Your task to perform on an android device: Search for usb-a on amazon.com, select the first entry, and add it to the cart. Image 0: 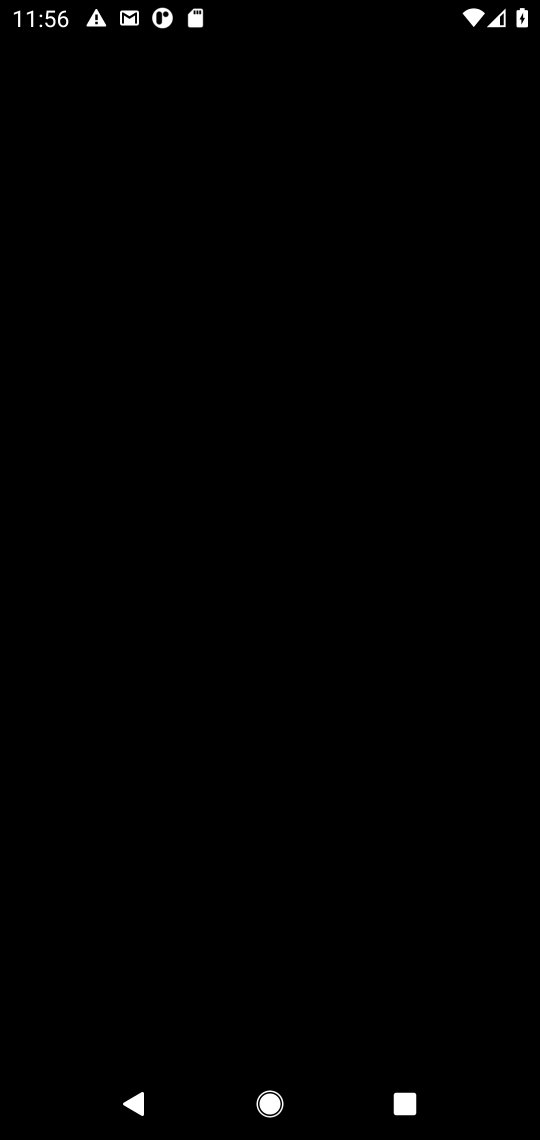
Step 0: press home button
Your task to perform on an android device: Search for usb-a on amazon.com, select the first entry, and add it to the cart. Image 1: 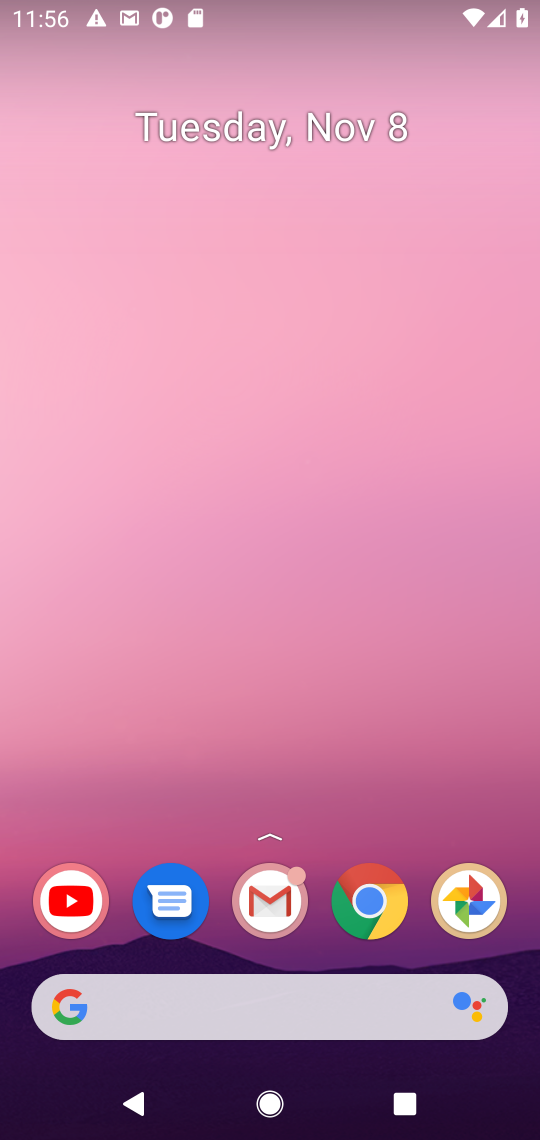
Step 1: click (347, 920)
Your task to perform on an android device: Search for usb-a on amazon.com, select the first entry, and add it to the cart. Image 2: 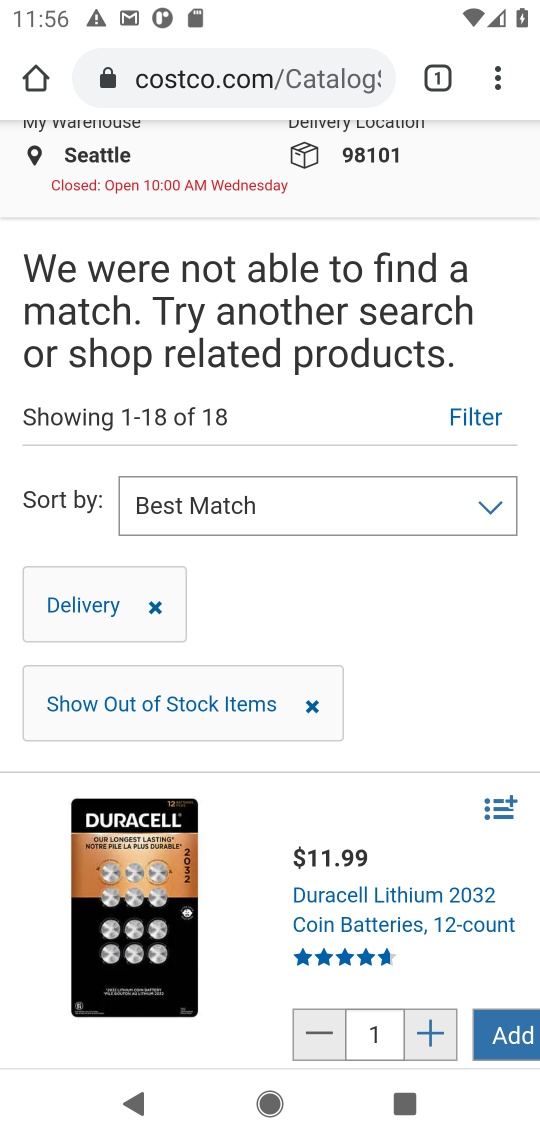
Step 2: click (218, 71)
Your task to perform on an android device: Search for usb-a on amazon.com, select the first entry, and add it to the cart. Image 3: 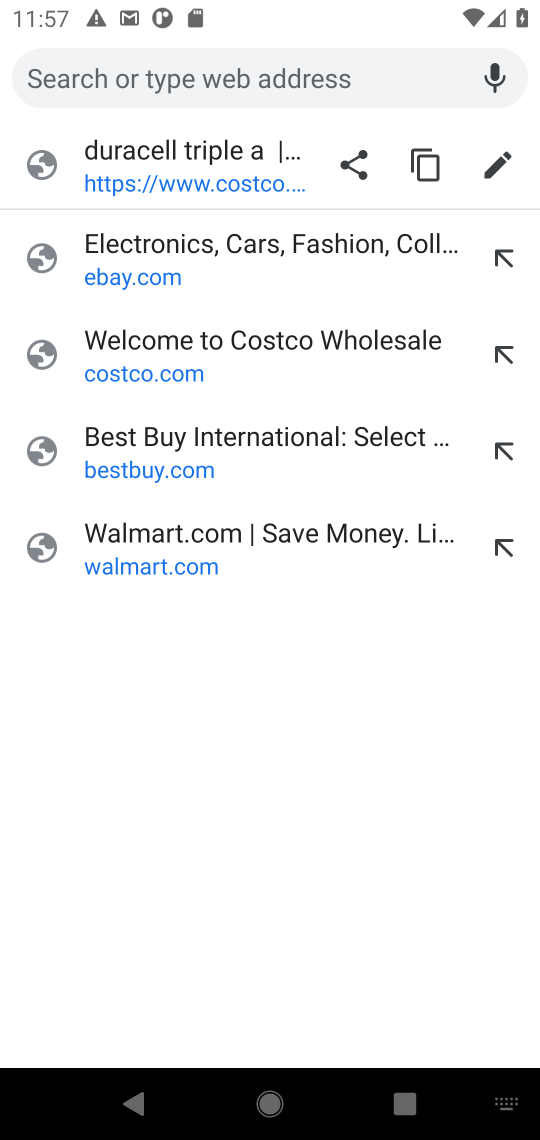
Step 3: type "amazon.com"
Your task to perform on an android device: Search for usb-a on amazon.com, select the first entry, and add it to the cart. Image 4: 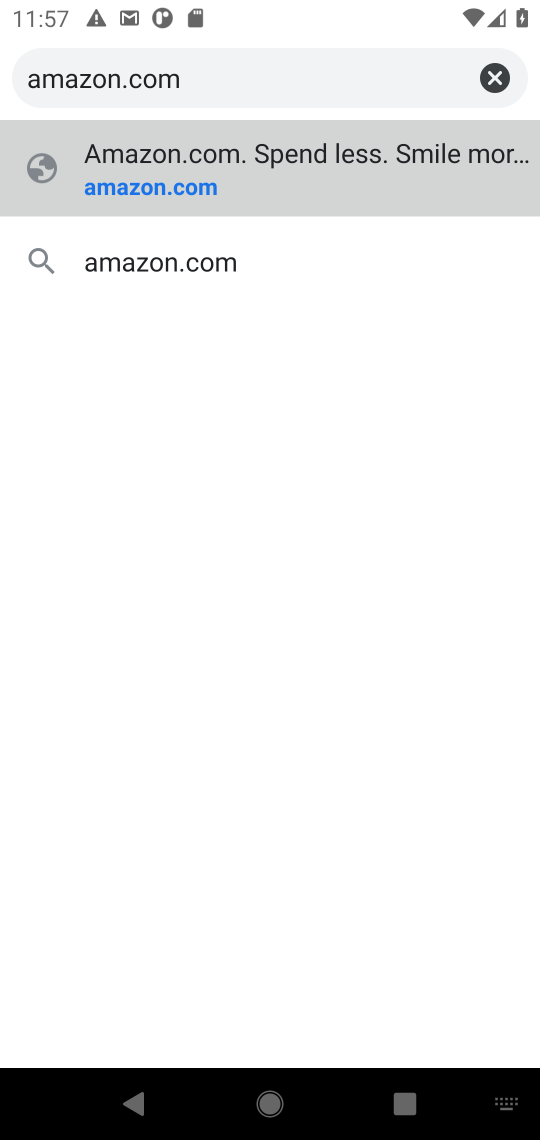
Step 4: press enter
Your task to perform on an android device: Search for usb-a on amazon.com, select the first entry, and add it to the cart. Image 5: 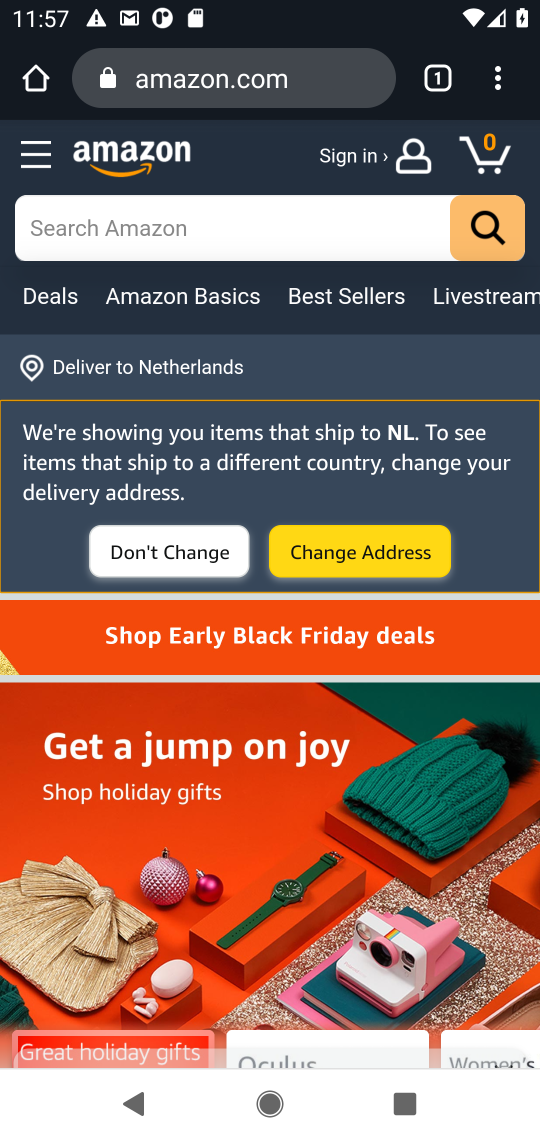
Step 5: click (285, 217)
Your task to perform on an android device: Search for usb-a on amazon.com, select the first entry, and add it to the cart. Image 6: 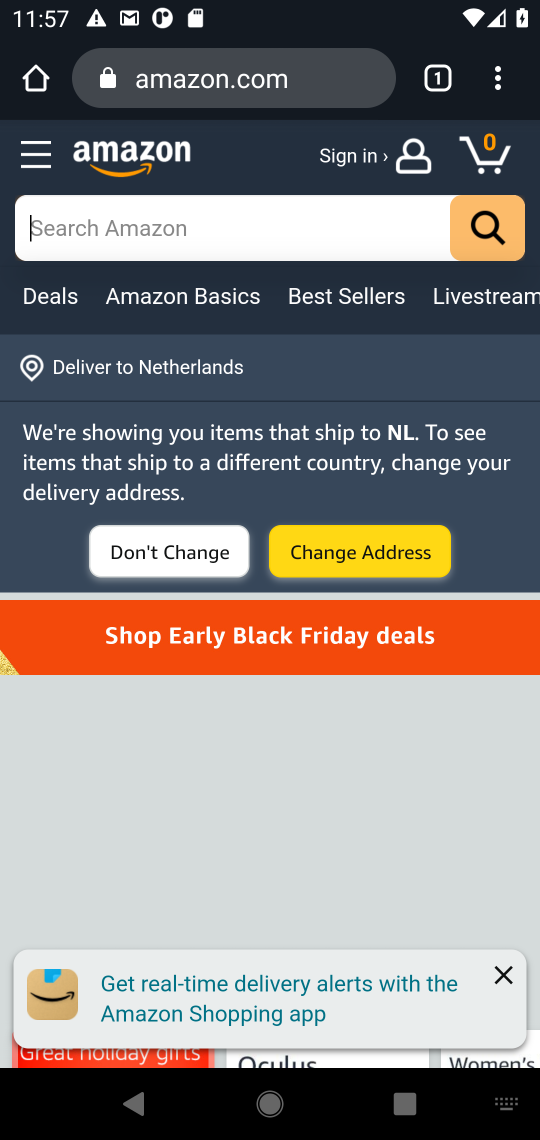
Step 6: click (285, 217)
Your task to perform on an android device: Search for usb-a on amazon.com, select the first entry, and add it to the cart. Image 7: 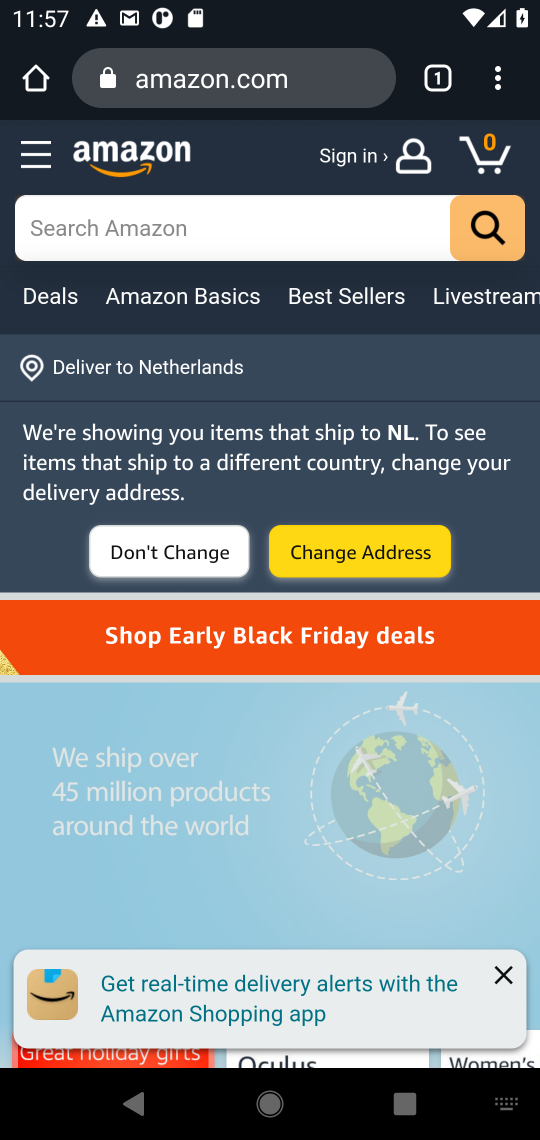
Step 7: type "usb-a"
Your task to perform on an android device: Search for usb-a on amazon.com, select the first entry, and add it to the cart. Image 8: 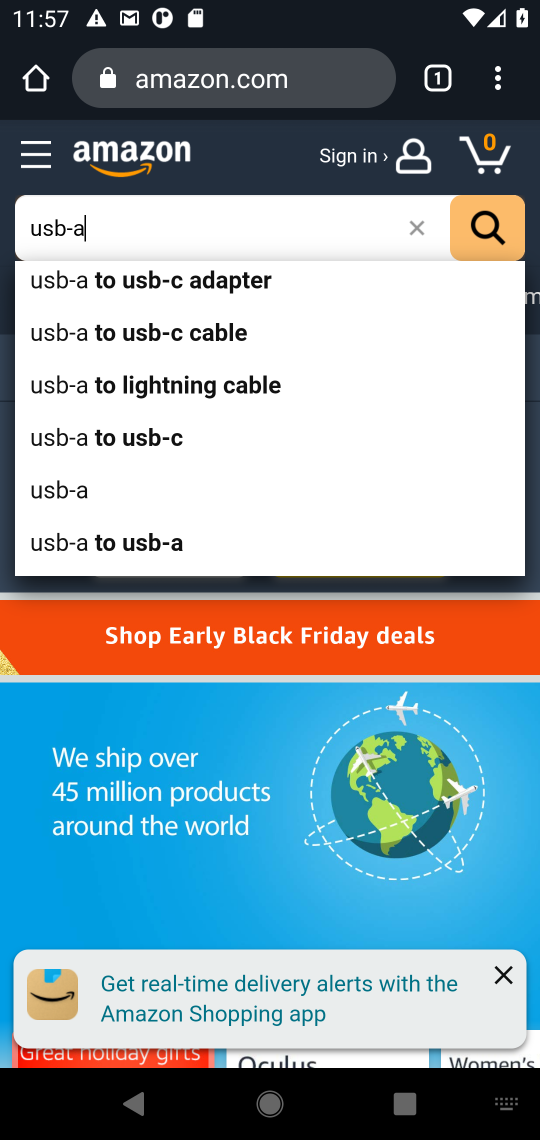
Step 8: press enter
Your task to perform on an android device: Search for usb-a on amazon.com, select the first entry, and add it to the cart. Image 9: 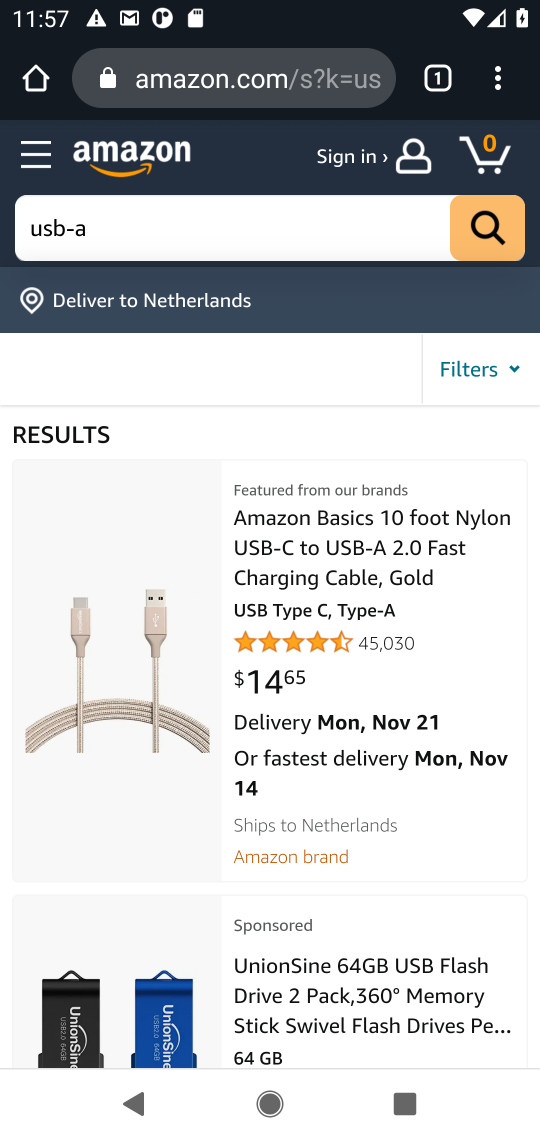
Step 9: drag from (375, 844) to (453, 443)
Your task to perform on an android device: Search for usb-a on amazon.com, select the first entry, and add it to the cart. Image 10: 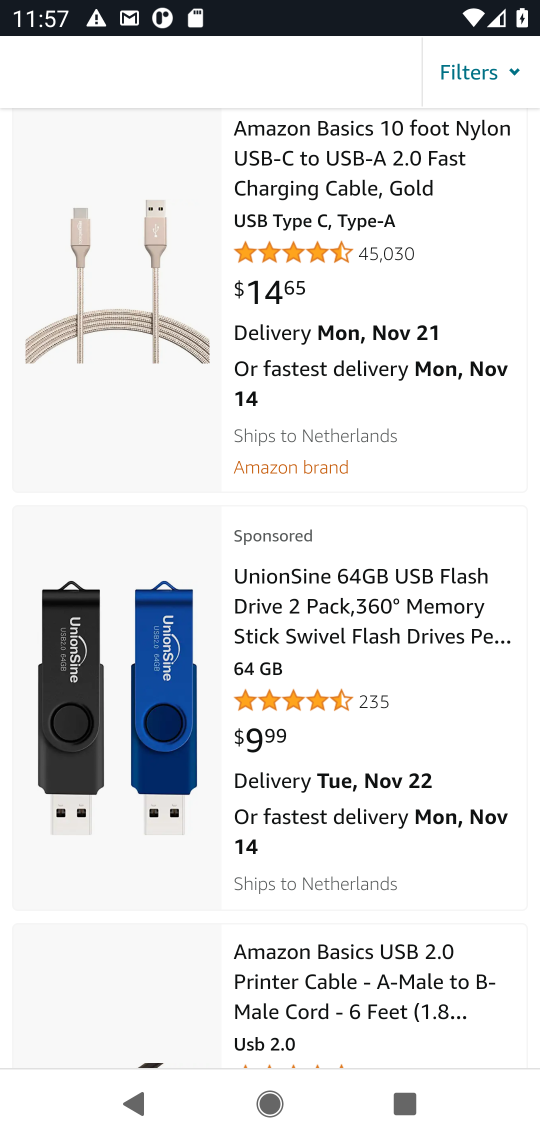
Step 10: drag from (411, 995) to (432, 715)
Your task to perform on an android device: Search for usb-a on amazon.com, select the first entry, and add it to the cart. Image 11: 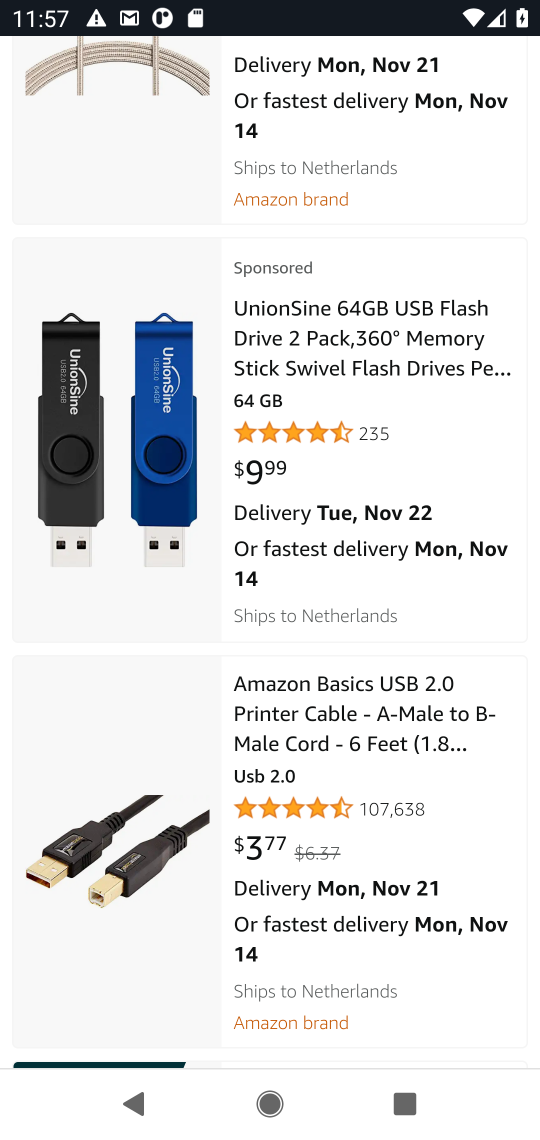
Step 11: click (70, 729)
Your task to perform on an android device: Search for usb-a on amazon.com, select the first entry, and add it to the cart. Image 12: 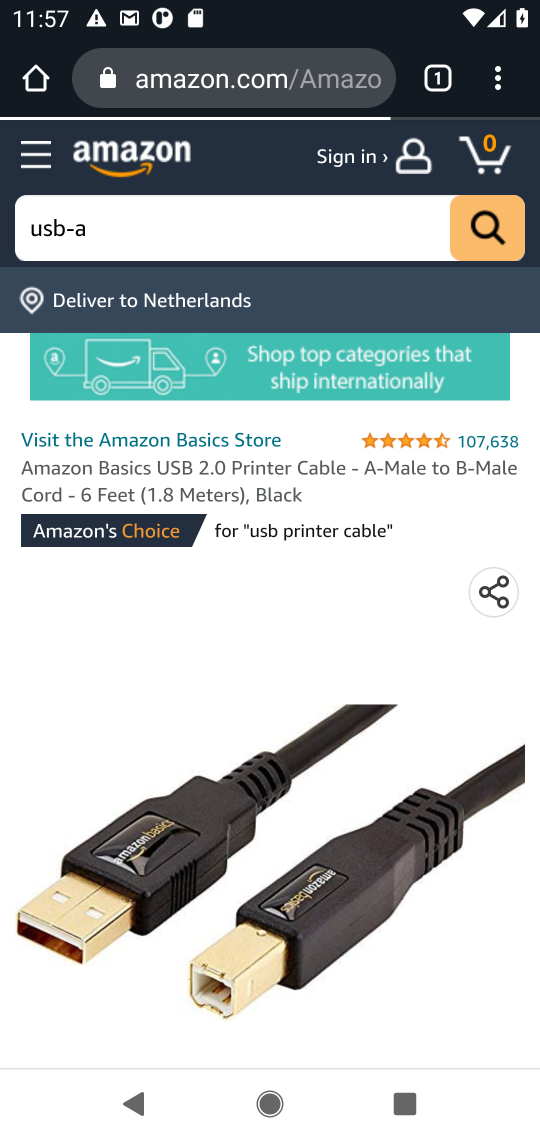
Step 12: drag from (468, 921) to (536, 537)
Your task to perform on an android device: Search for usb-a on amazon.com, select the first entry, and add it to the cart. Image 13: 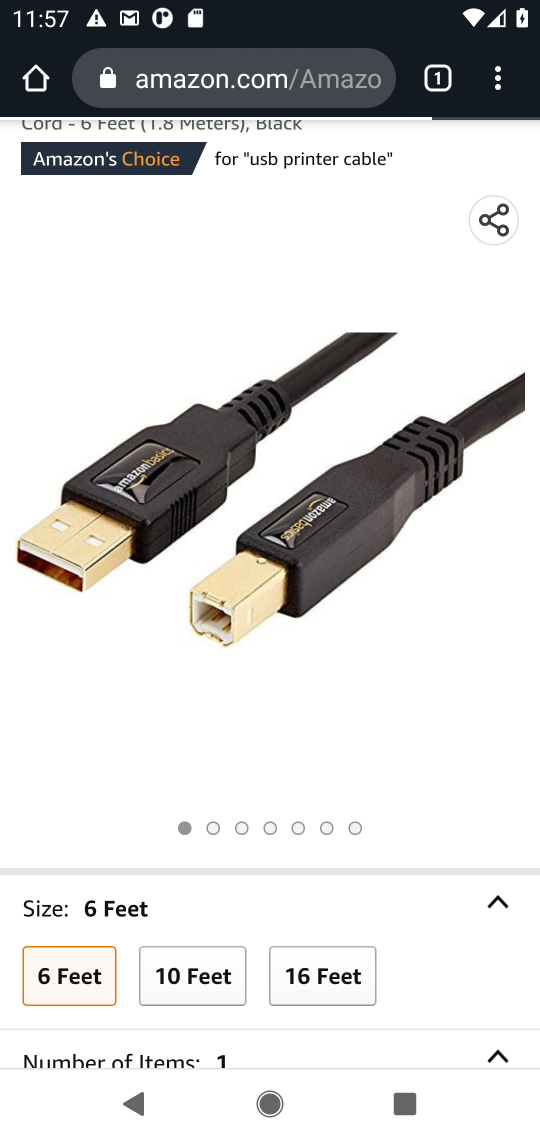
Step 13: drag from (464, 824) to (472, 492)
Your task to perform on an android device: Search for usb-a on amazon.com, select the first entry, and add it to the cart. Image 14: 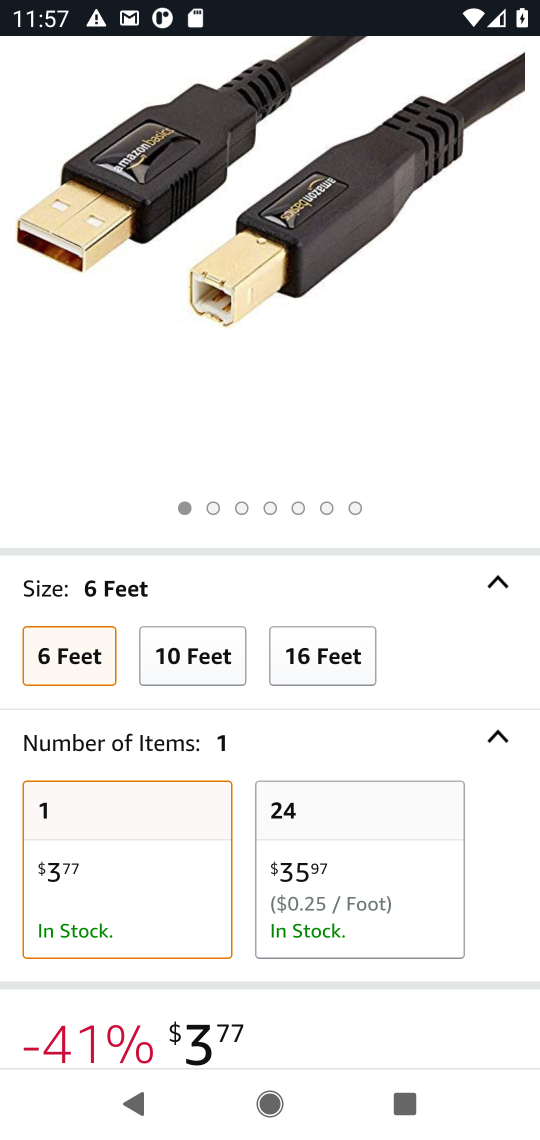
Step 14: drag from (458, 972) to (539, 679)
Your task to perform on an android device: Search for usb-a on amazon.com, select the first entry, and add it to the cart. Image 15: 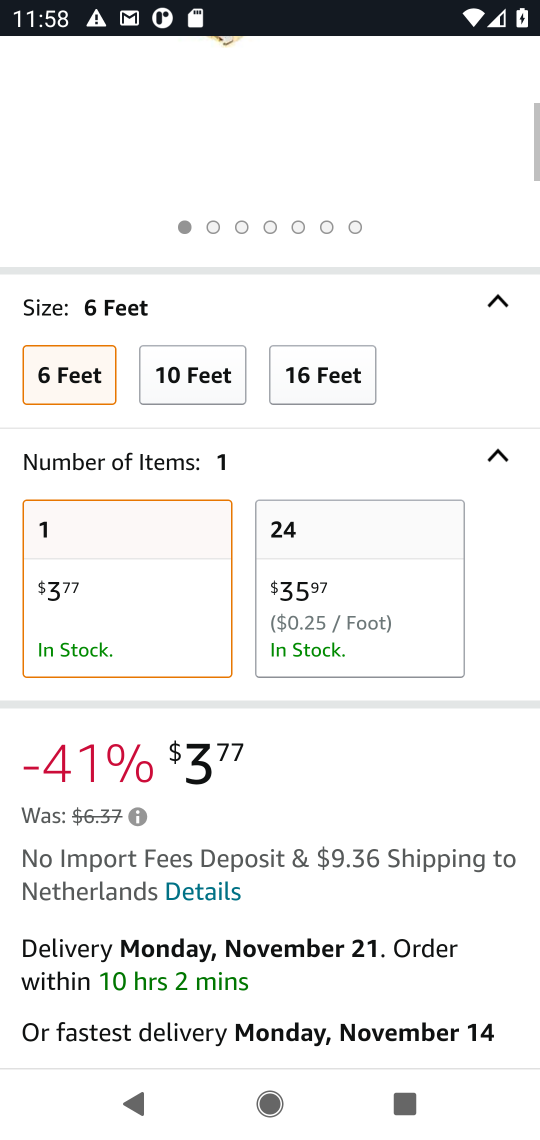
Step 15: drag from (442, 877) to (535, 509)
Your task to perform on an android device: Search for usb-a on amazon.com, select the first entry, and add it to the cart. Image 16: 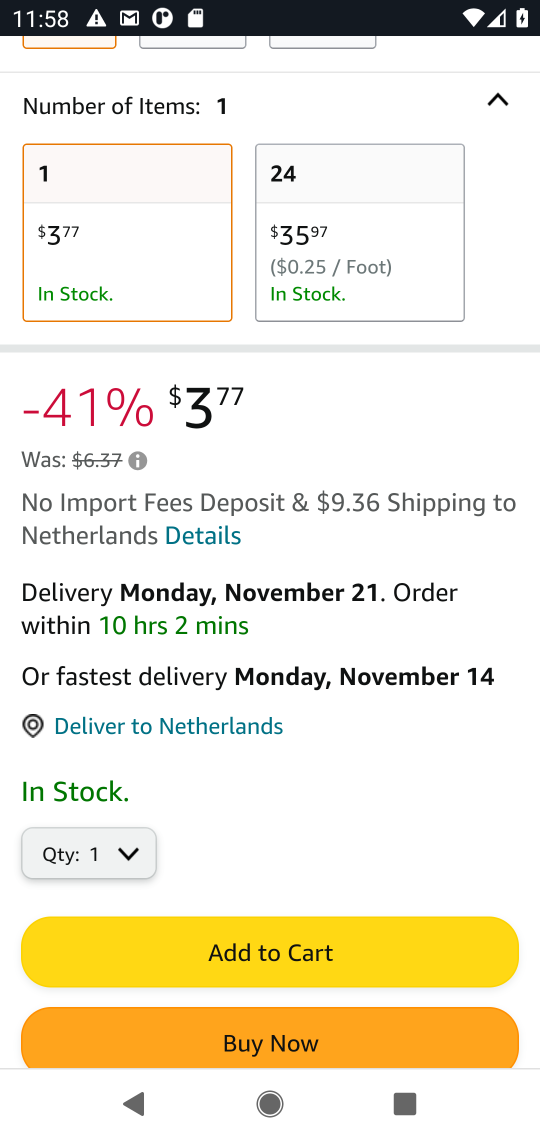
Step 16: click (311, 935)
Your task to perform on an android device: Search for usb-a on amazon.com, select the first entry, and add it to the cart. Image 17: 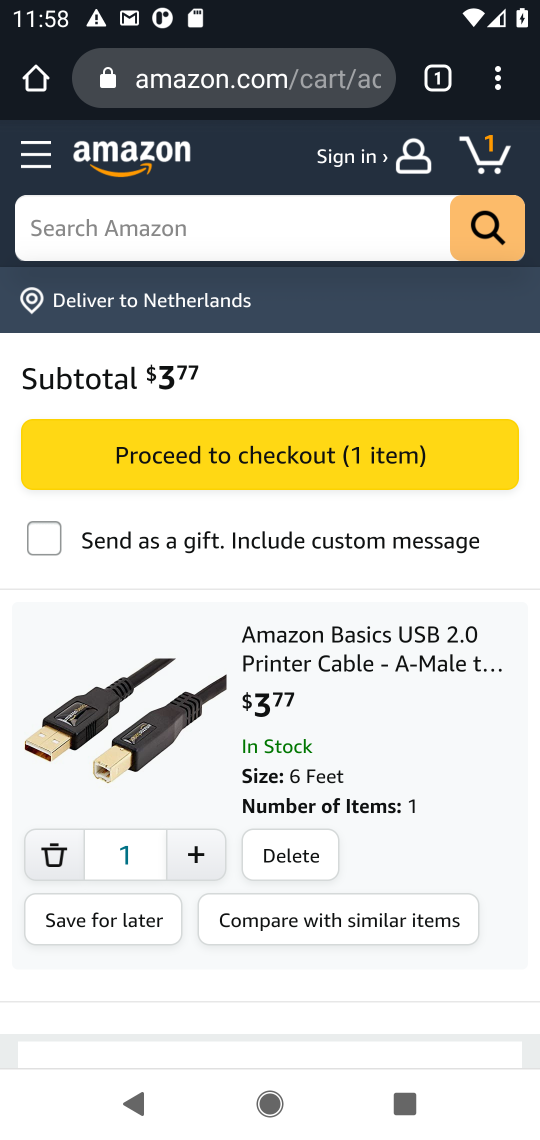
Step 17: task complete